Your task to perform on an android device: open a bookmark in the chrome app Image 0: 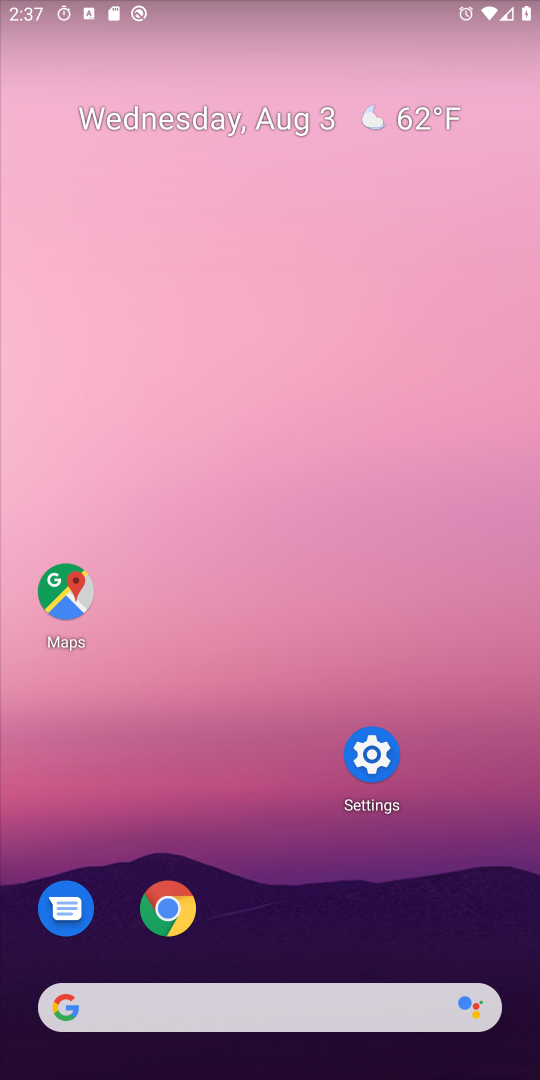
Step 0: drag from (269, 816) to (296, 94)
Your task to perform on an android device: open a bookmark in the chrome app Image 1: 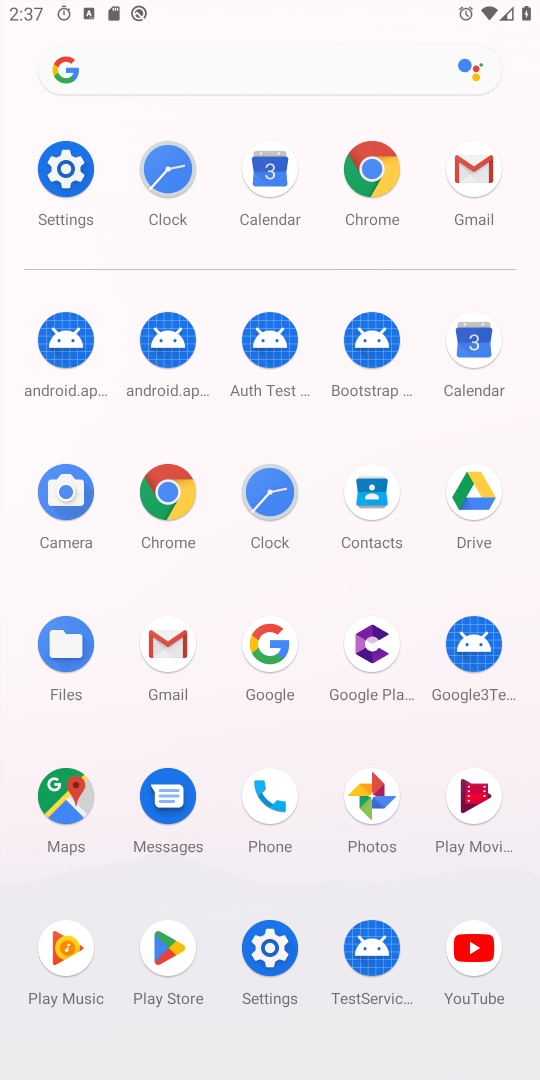
Step 1: click (155, 503)
Your task to perform on an android device: open a bookmark in the chrome app Image 2: 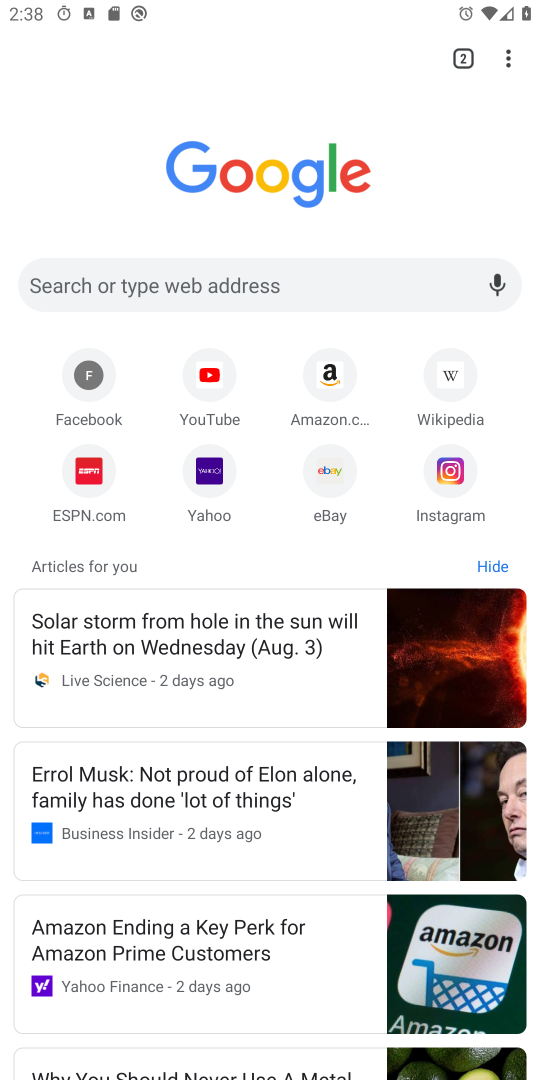
Step 2: click (514, 61)
Your task to perform on an android device: open a bookmark in the chrome app Image 3: 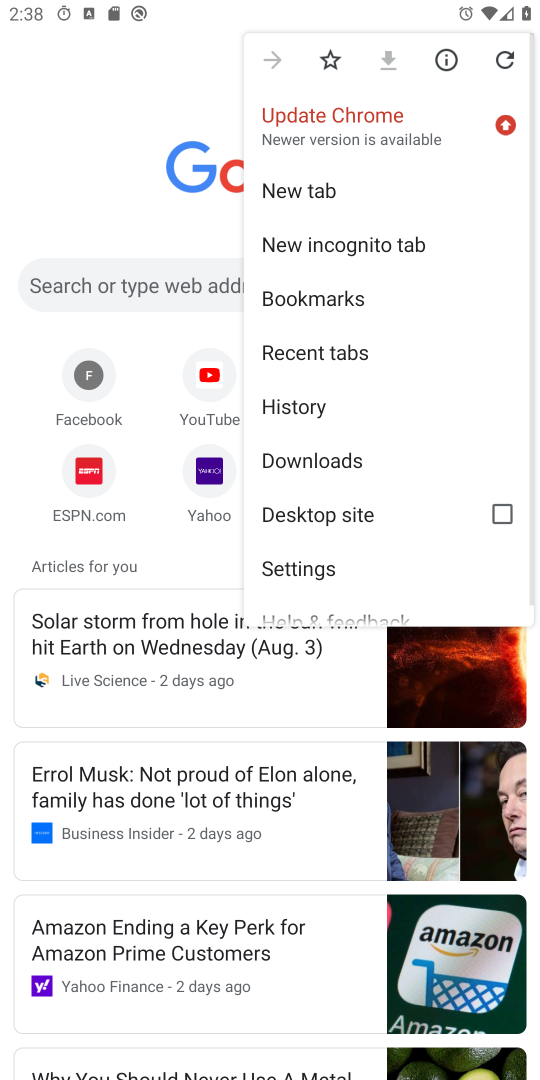
Step 3: click (337, 297)
Your task to perform on an android device: open a bookmark in the chrome app Image 4: 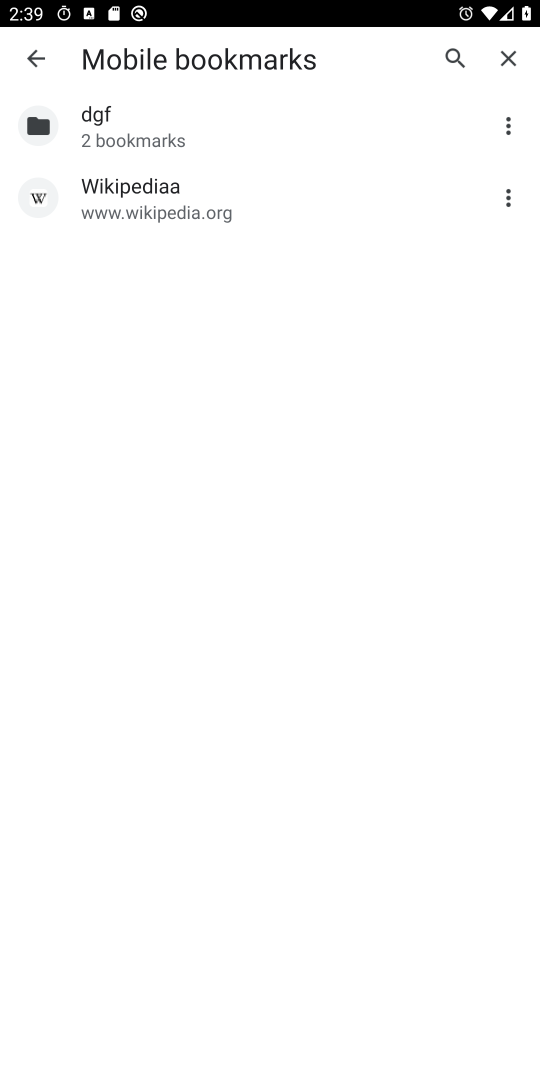
Step 4: click (334, 212)
Your task to perform on an android device: open a bookmark in the chrome app Image 5: 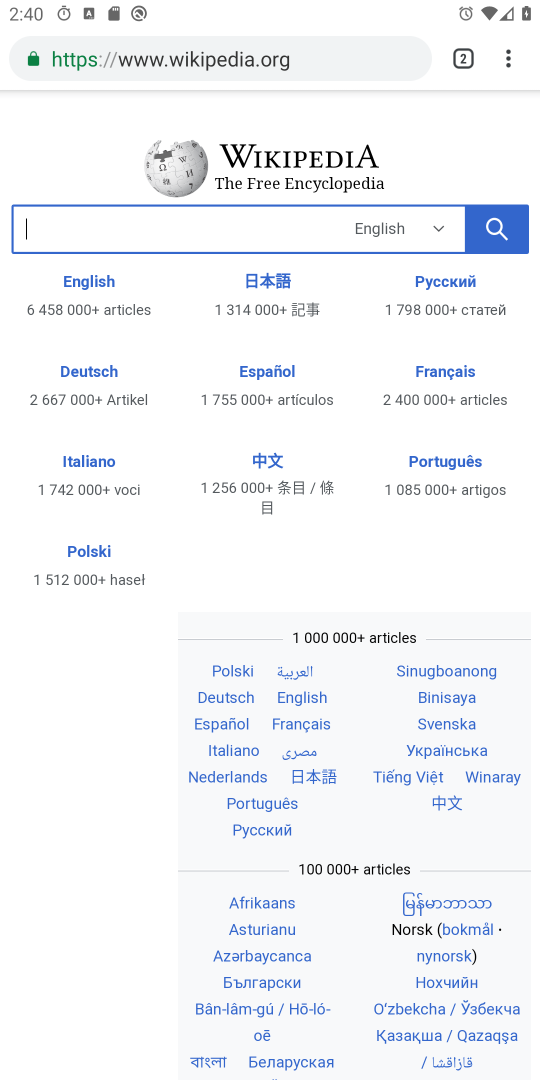
Step 5: task complete